Your task to perform on an android device: Go to Yahoo.com Image 0: 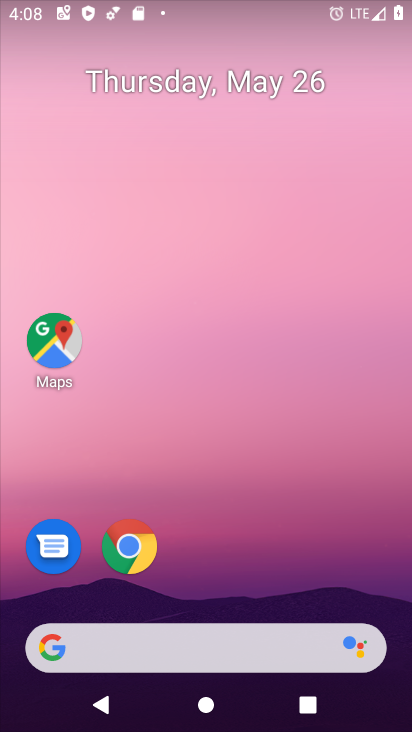
Step 0: click (130, 552)
Your task to perform on an android device: Go to Yahoo.com Image 1: 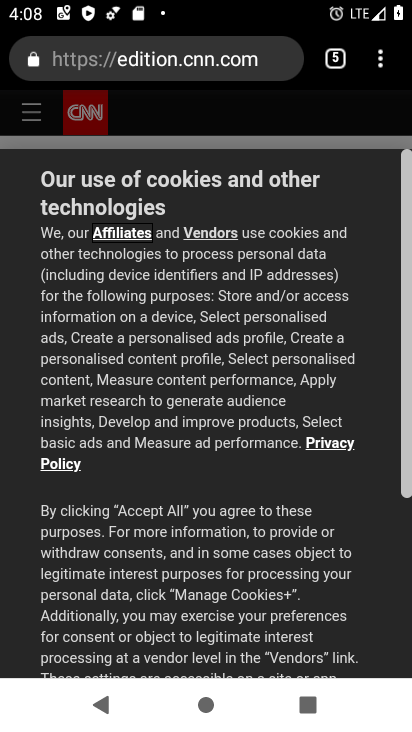
Step 1: click (326, 57)
Your task to perform on an android device: Go to Yahoo.com Image 2: 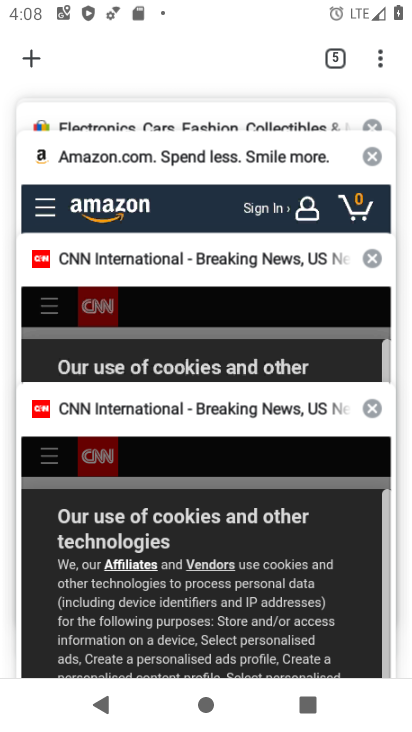
Step 2: click (29, 52)
Your task to perform on an android device: Go to Yahoo.com Image 3: 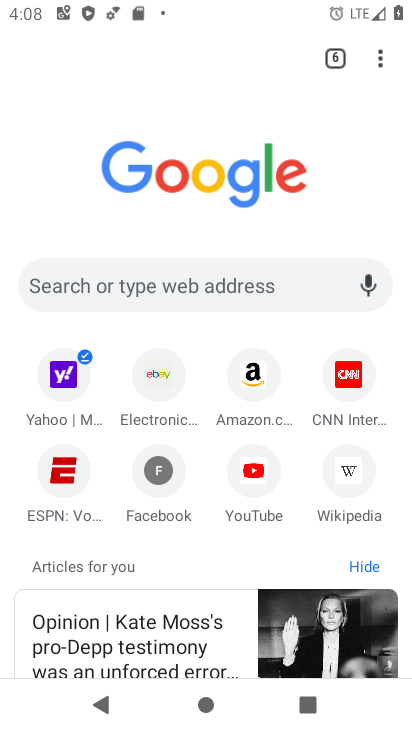
Step 3: click (76, 390)
Your task to perform on an android device: Go to Yahoo.com Image 4: 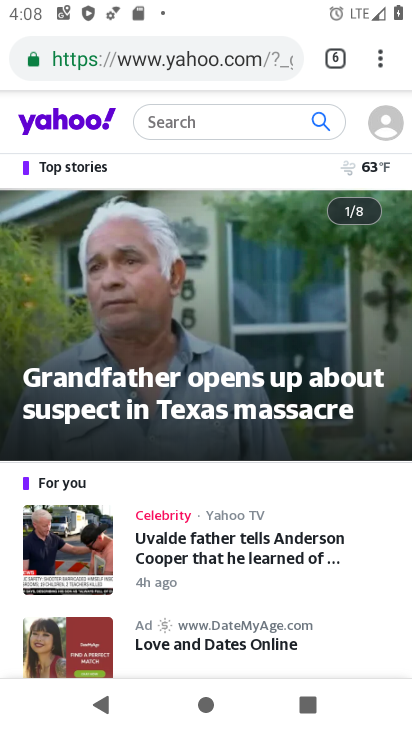
Step 4: task complete